Your task to perform on an android device: open sync settings in chrome Image 0: 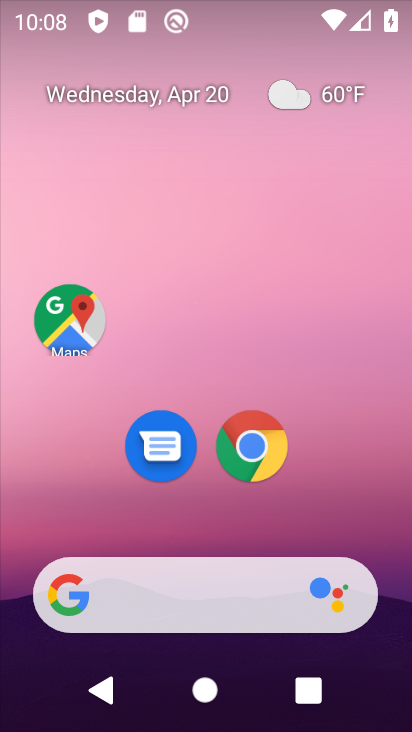
Step 0: drag from (323, 477) to (204, 4)
Your task to perform on an android device: open sync settings in chrome Image 1: 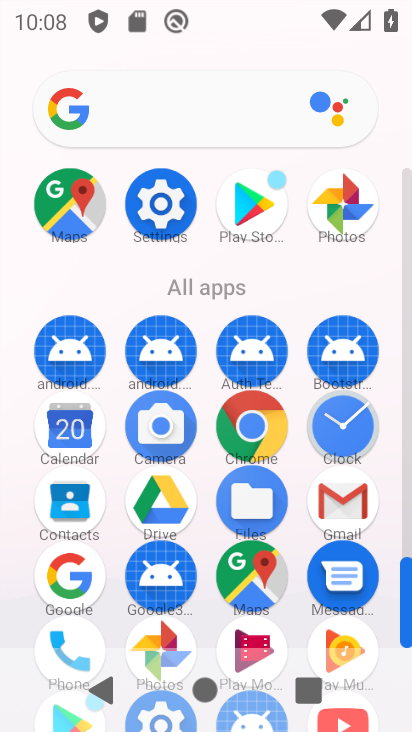
Step 1: drag from (15, 488) to (5, 190)
Your task to perform on an android device: open sync settings in chrome Image 2: 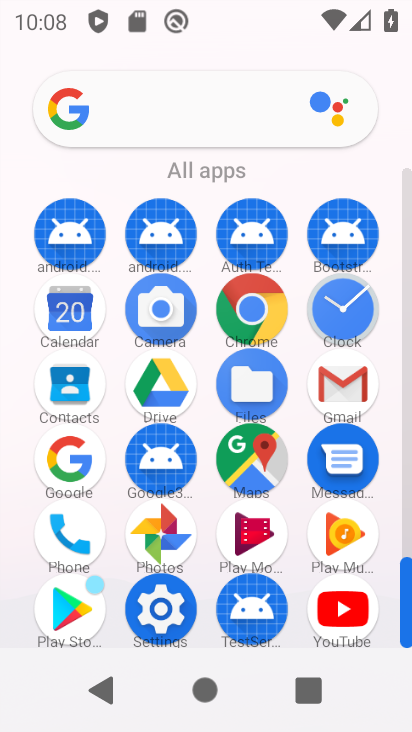
Step 2: click (255, 304)
Your task to perform on an android device: open sync settings in chrome Image 3: 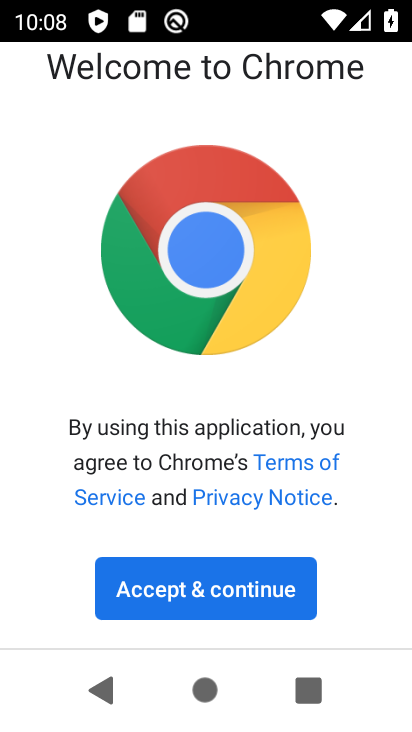
Step 3: click (243, 573)
Your task to perform on an android device: open sync settings in chrome Image 4: 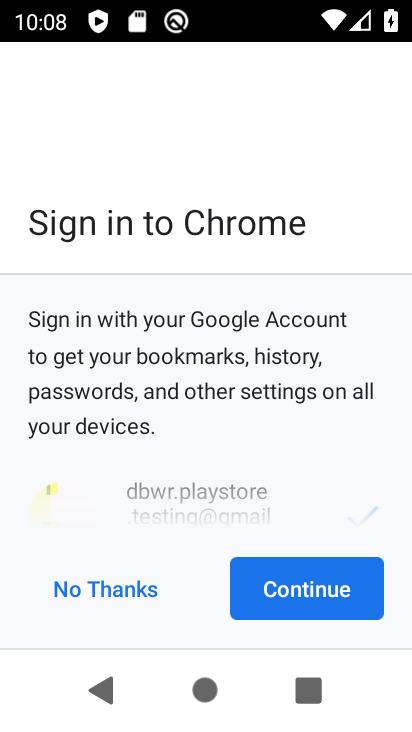
Step 4: click (267, 579)
Your task to perform on an android device: open sync settings in chrome Image 5: 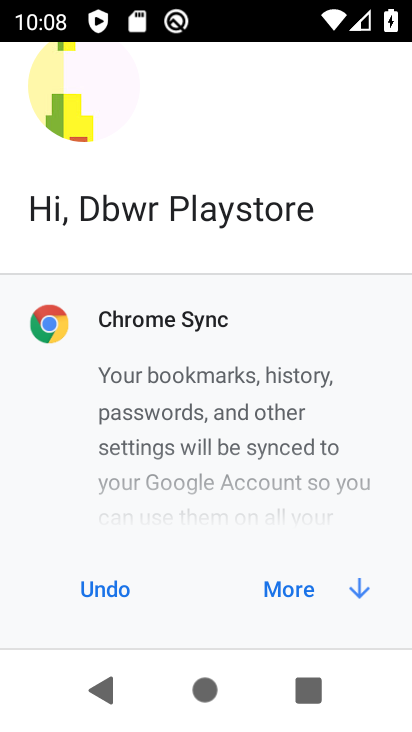
Step 5: click (273, 590)
Your task to perform on an android device: open sync settings in chrome Image 6: 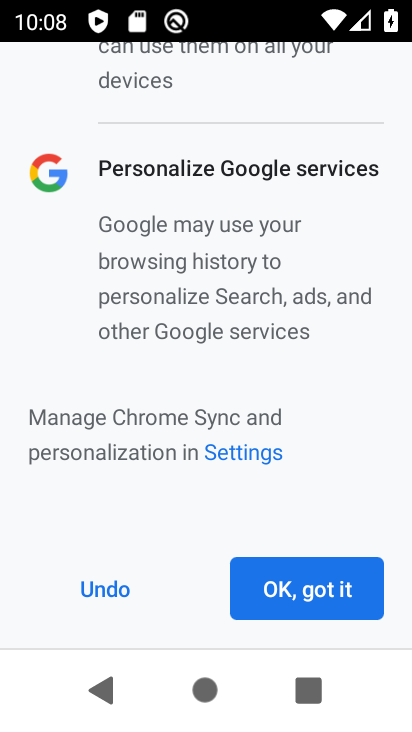
Step 6: click (273, 590)
Your task to perform on an android device: open sync settings in chrome Image 7: 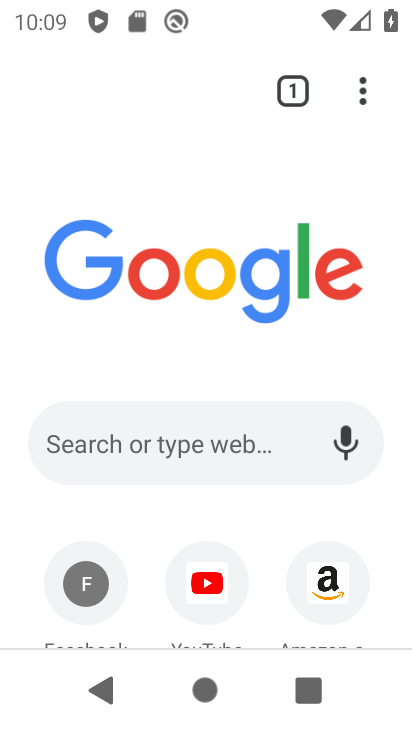
Step 7: click (357, 96)
Your task to perform on an android device: open sync settings in chrome Image 8: 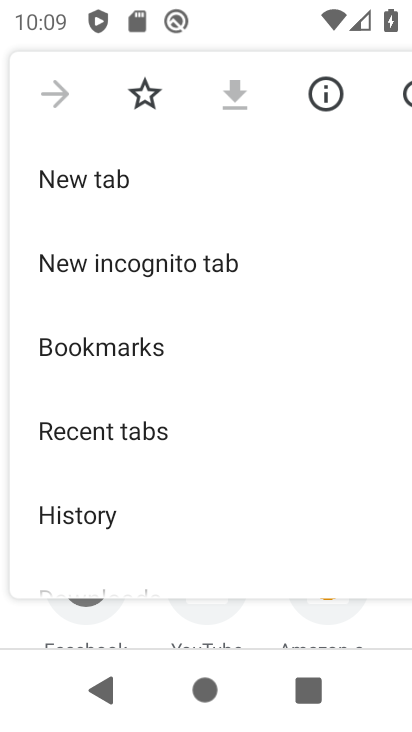
Step 8: drag from (239, 502) to (224, 119)
Your task to perform on an android device: open sync settings in chrome Image 9: 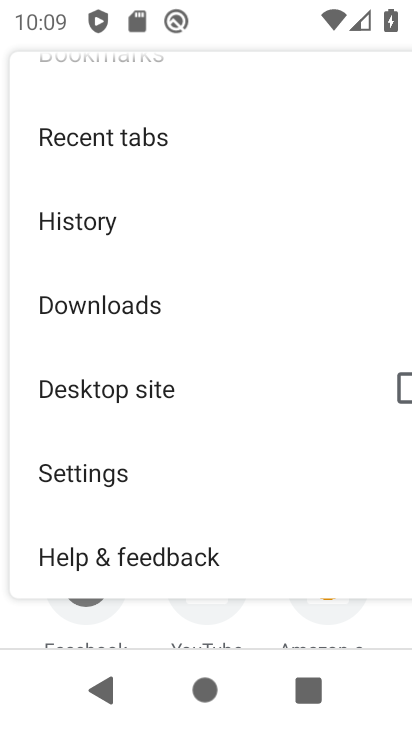
Step 9: drag from (183, 423) to (183, 129)
Your task to perform on an android device: open sync settings in chrome Image 10: 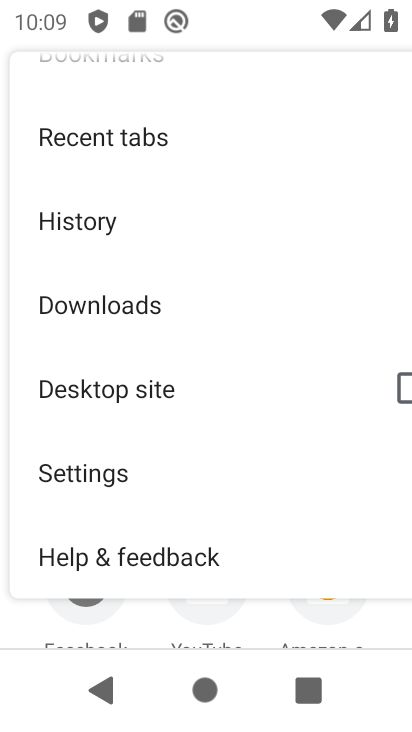
Step 10: click (116, 463)
Your task to perform on an android device: open sync settings in chrome Image 11: 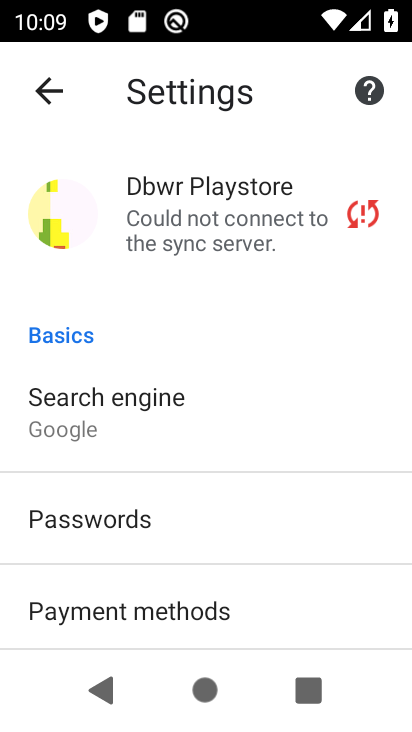
Step 11: click (171, 210)
Your task to perform on an android device: open sync settings in chrome Image 12: 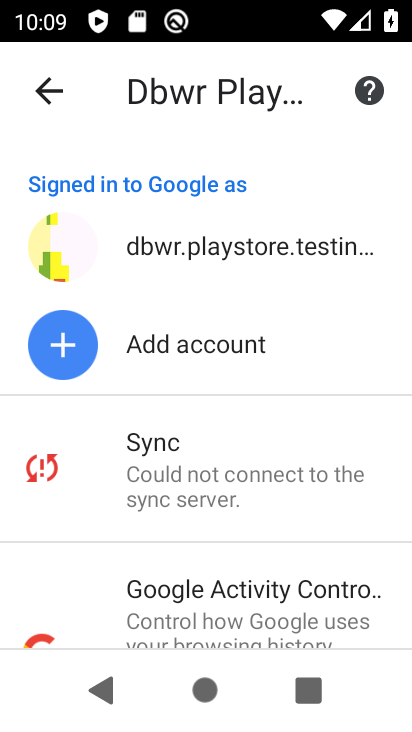
Step 12: click (188, 463)
Your task to perform on an android device: open sync settings in chrome Image 13: 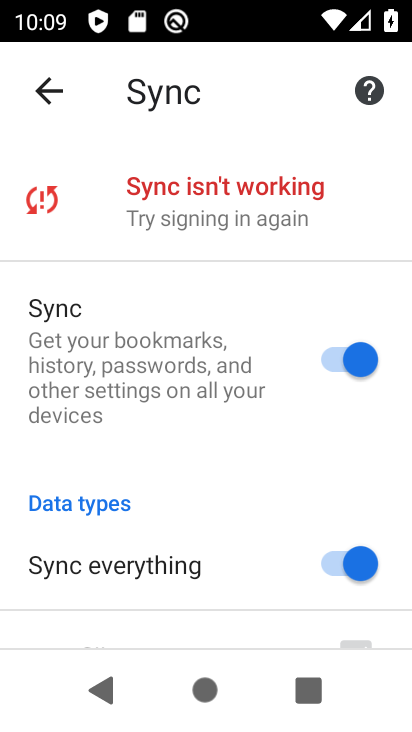
Step 13: task complete